Your task to perform on an android device: turn off translation in the chrome app Image 0: 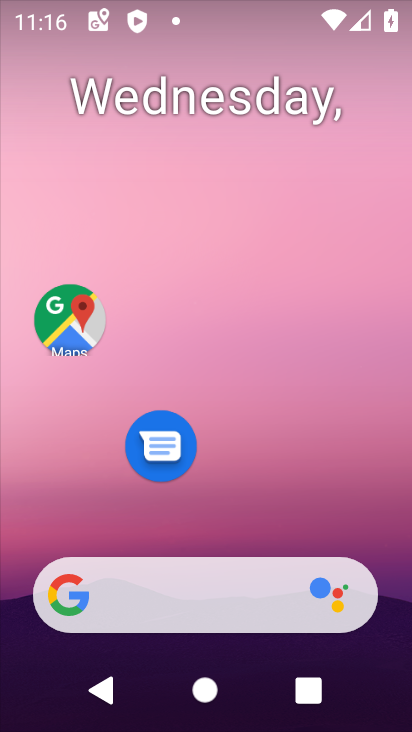
Step 0: drag from (263, 512) to (175, 68)
Your task to perform on an android device: turn off translation in the chrome app Image 1: 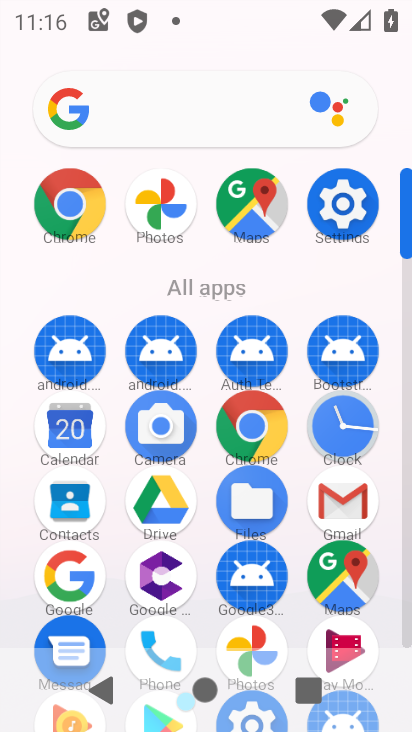
Step 1: click (250, 415)
Your task to perform on an android device: turn off translation in the chrome app Image 2: 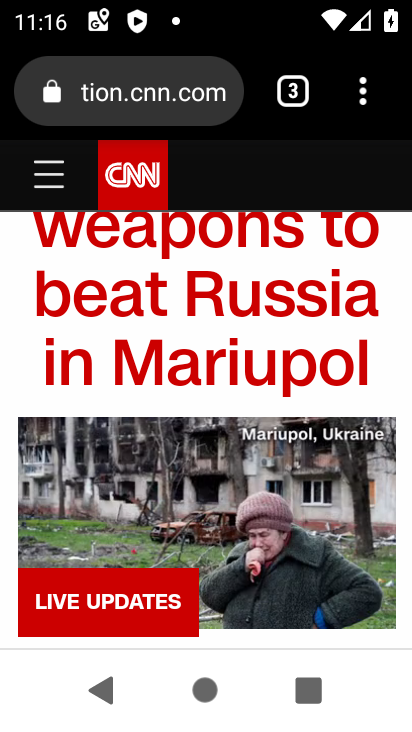
Step 2: drag from (369, 90) to (98, 467)
Your task to perform on an android device: turn off translation in the chrome app Image 3: 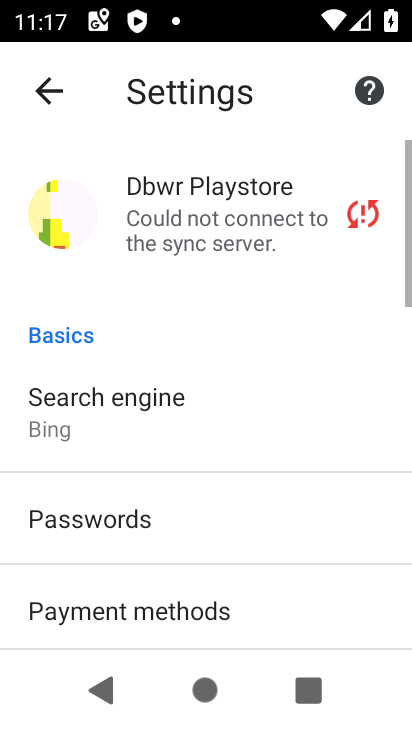
Step 3: drag from (186, 596) to (198, 195)
Your task to perform on an android device: turn off translation in the chrome app Image 4: 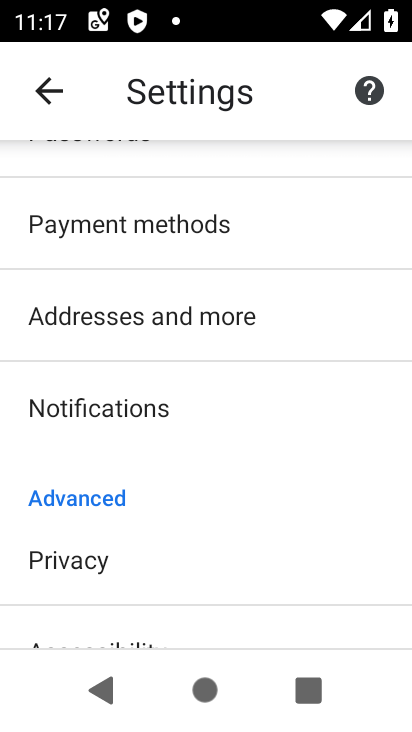
Step 4: drag from (133, 567) to (171, 280)
Your task to perform on an android device: turn off translation in the chrome app Image 5: 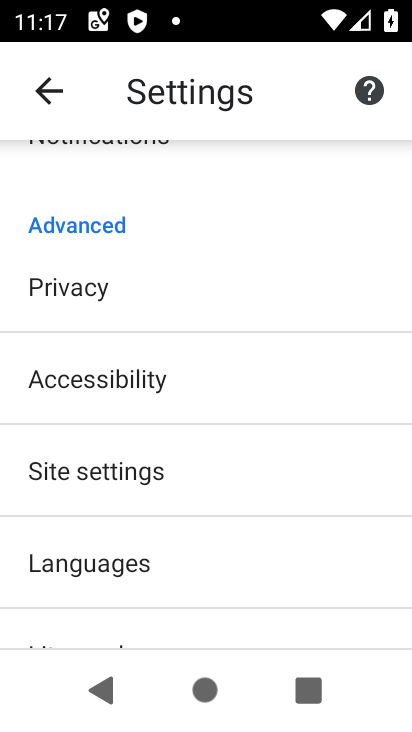
Step 5: drag from (136, 576) to (149, 332)
Your task to perform on an android device: turn off translation in the chrome app Image 6: 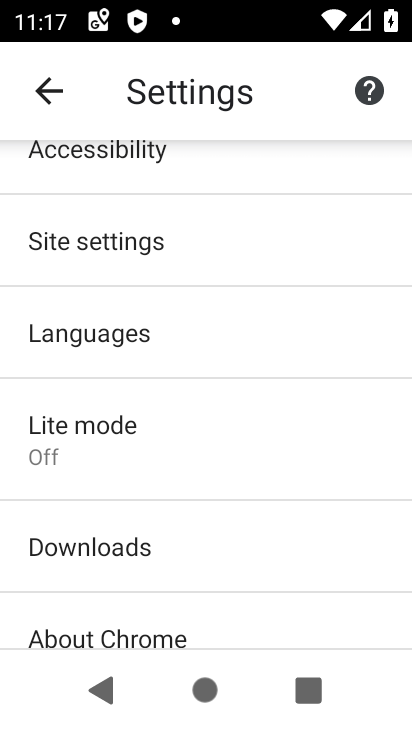
Step 6: click (149, 333)
Your task to perform on an android device: turn off translation in the chrome app Image 7: 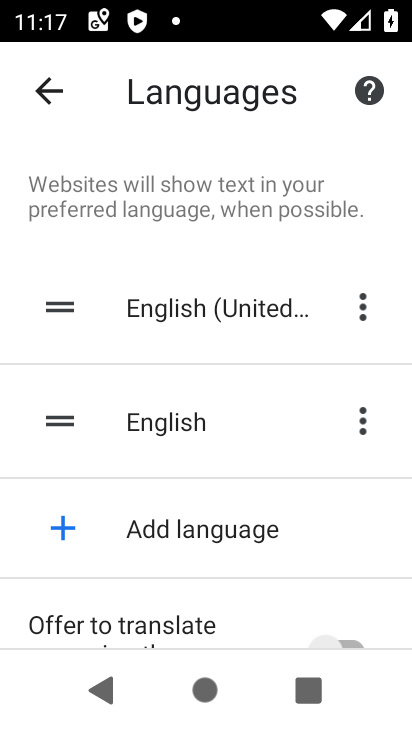
Step 7: task complete